Your task to perform on an android device: Go to internet settings Image 0: 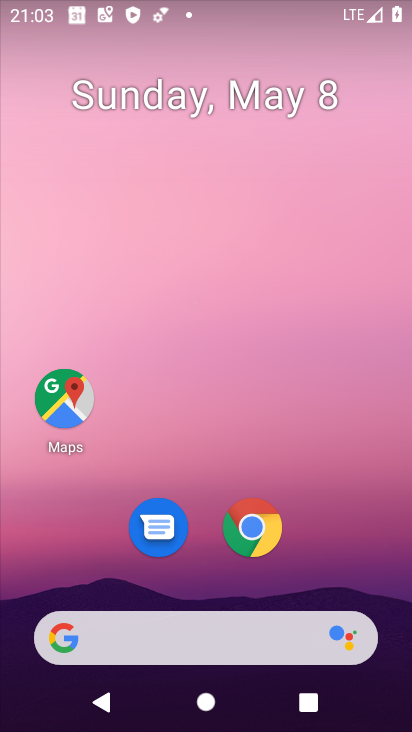
Step 0: drag from (200, 580) to (155, 144)
Your task to perform on an android device: Go to internet settings Image 1: 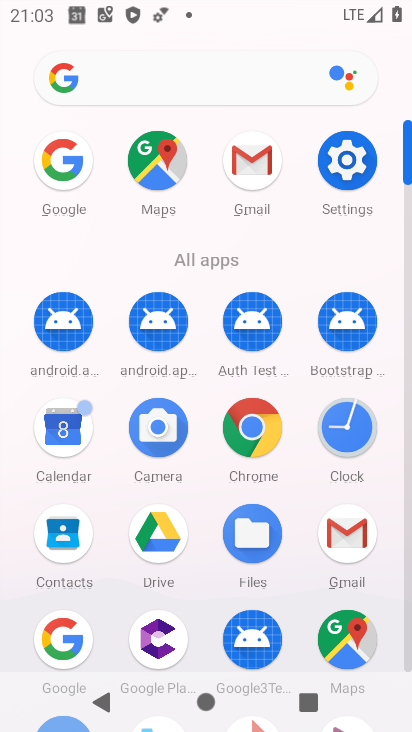
Step 1: click (348, 159)
Your task to perform on an android device: Go to internet settings Image 2: 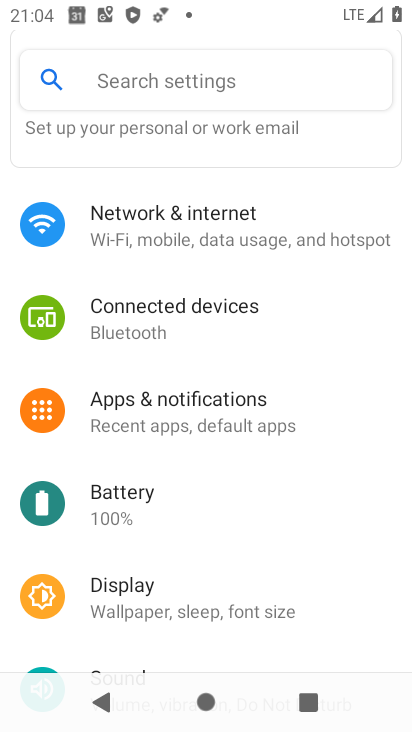
Step 2: click (190, 227)
Your task to perform on an android device: Go to internet settings Image 3: 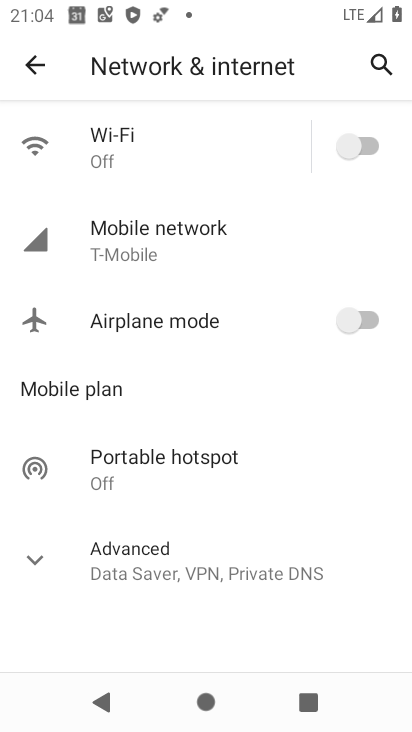
Step 3: click (150, 143)
Your task to perform on an android device: Go to internet settings Image 4: 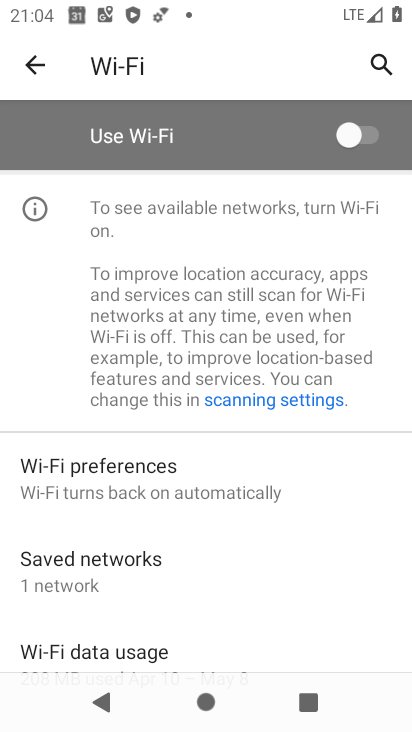
Step 4: click (346, 134)
Your task to perform on an android device: Go to internet settings Image 5: 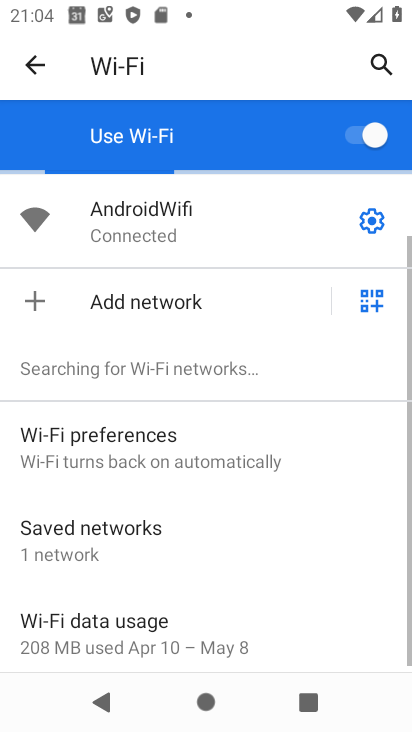
Step 5: click (169, 232)
Your task to perform on an android device: Go to internet settings Image 6: 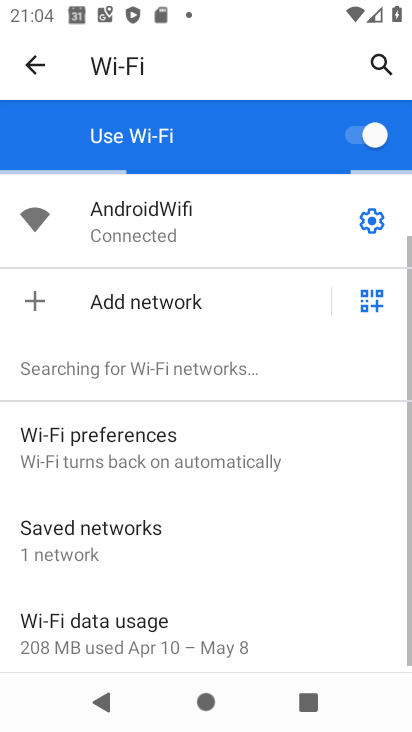
Step 6: click (181, 215)
Your task to perform on an android device: Go to internet settings Image 7: 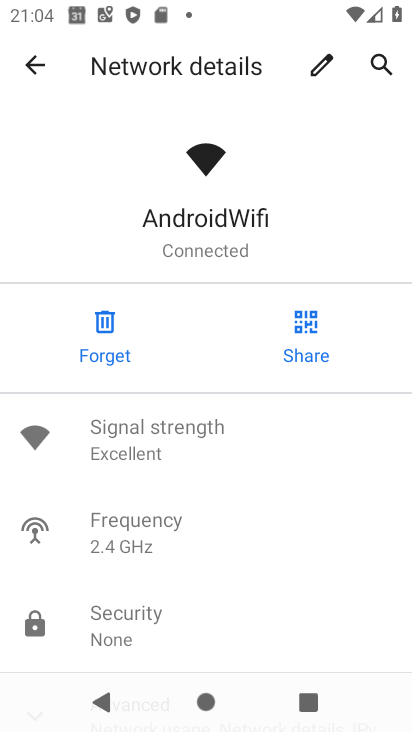
Step 7: task complete